Your task to perform on an android device: View the shopping cart on target.com. Search for bose soundsport free on target.com, select the first entry, add it to the cart, then select checkout. Image 0: 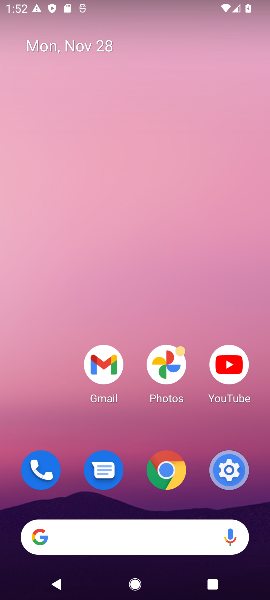
Step 0: click (142, 535)
Your task to perform on an android device: View the shopping cart on target.com. Search for bose soundsport free on target.com, select the first entry, add it to the cart, then select checkout. Image 1: 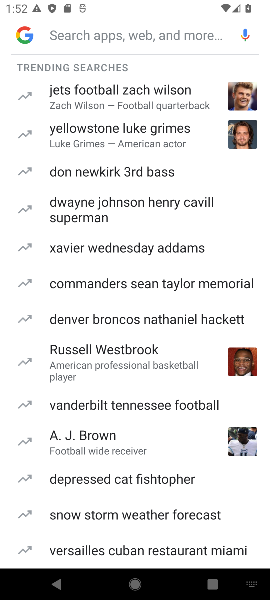
Step 1: type "target"
Your task to perform on an android device: View the shopping cart on target.com. Search for bose soundsport free on target.com, select the first entry, add it to the cart, then select checkout. Image 2: 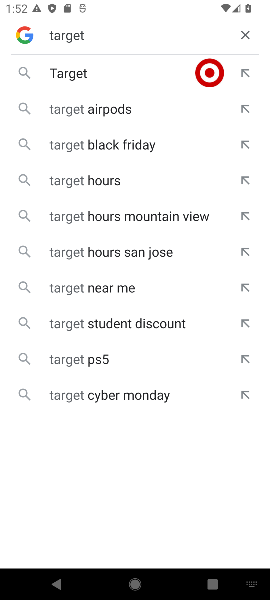
Step 2: click (103, 86)
Your task to perform on an android device: View the shopping cart on target.com. Search for bose soundsport free on target.com, select the first entry, add it to the cart, then select checkout. Image 3: 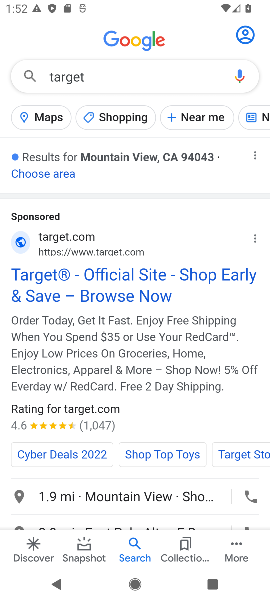
Step 3: click (39, 276)
Your task to perform on an android device: View the shopping cart on target.com. Search for bose soundsport free on target.com, select the first entry, add it to the cart, then select checkout. Image 4: 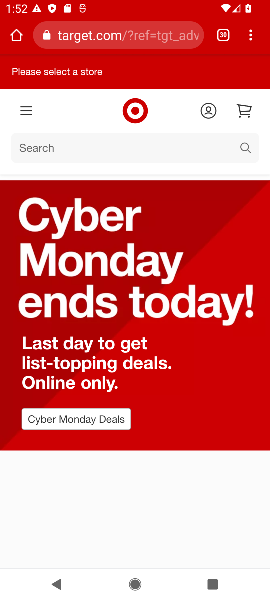
Step 4: click (49, 153)
Your task to perform on an android device: View the shopping cart on target.com. Search for bose soundsport free on target.com, select the first entry, add it to the cart, then select checkout. Image 5: 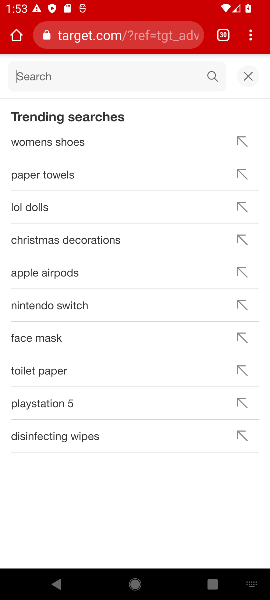
Step 5: click (82, 73)
Your task to perform on an android device: View the shopping cart on target.com. Search for bose soundsport free on target.com, select the first entry, add it to the cart, then select checkout. Image 6: 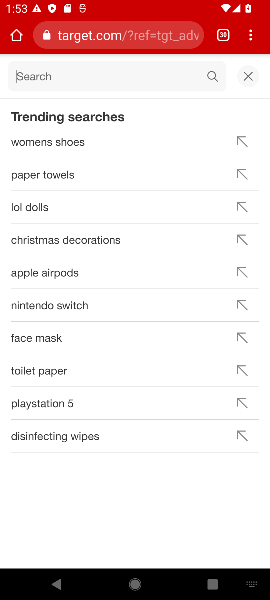
Step 6: type "soudsport"
Your task to perform on an android device: View the shopping cart on target.com. Search for bose soundsport free on target.com, select the first entry, add it to the cart, then select checkout. Image 7: 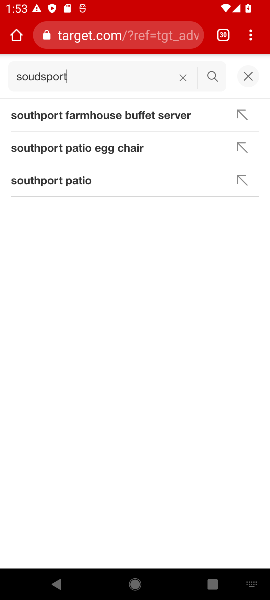
Step 7: click (49, 114)
Your task to perform on an android device: View the shopping cart on target.com. Search for bose soundsport free on target.com, select the first entry, add it to the cart, then select checkout. Image 8: 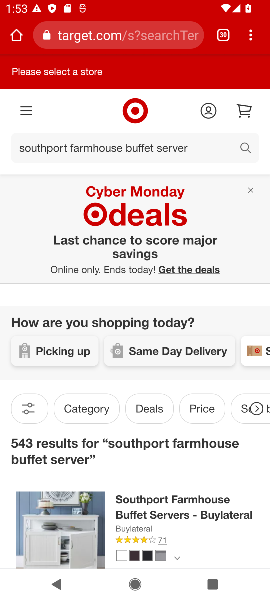
Step 8: task complete